Your task to perform on an android device: turn on the 24-hour format for clock Image 0: 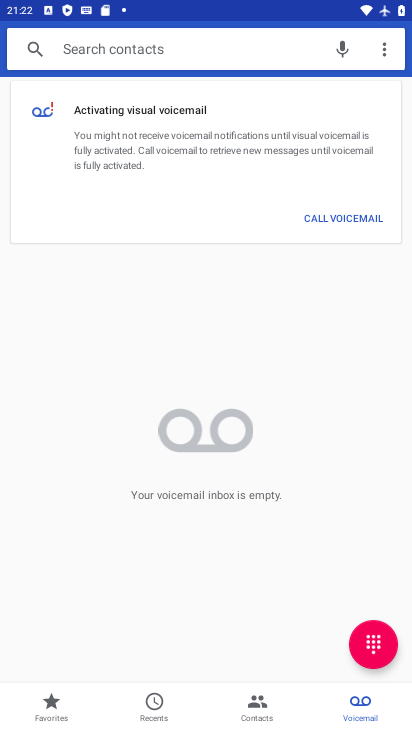
Step 0: press home button
Your task to perform on an android device: turn on the 24-hour format for clock Image 1: 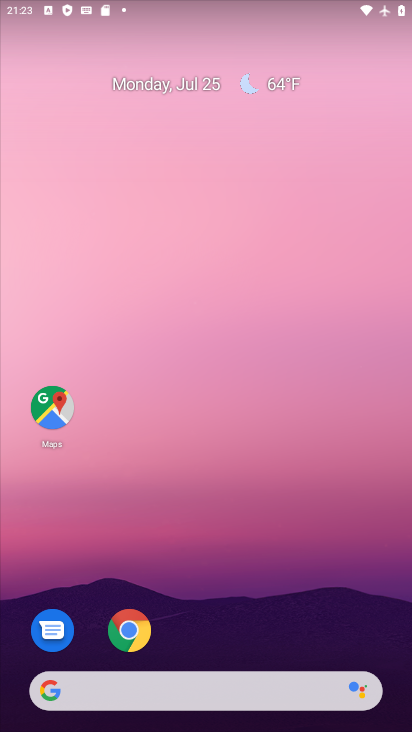
Step 1: drag from (387, 645) to (332, 202)
Your task to perform on an android device: turn on the 24-hour format for clock Image 2: 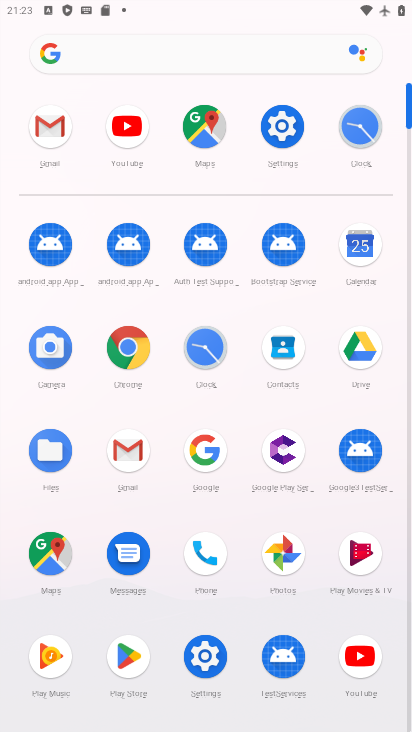
Step 2: click (207, 347)
Your task to perform on an android device: turn on the 24-hour format for clock Image 3: 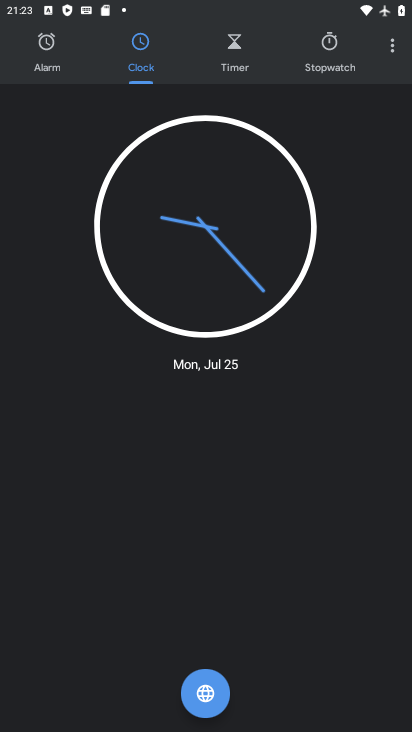
Step 3: click (391, 52)
Your task to perform on an android device: turn on the 24-hour format for clock Image 4: 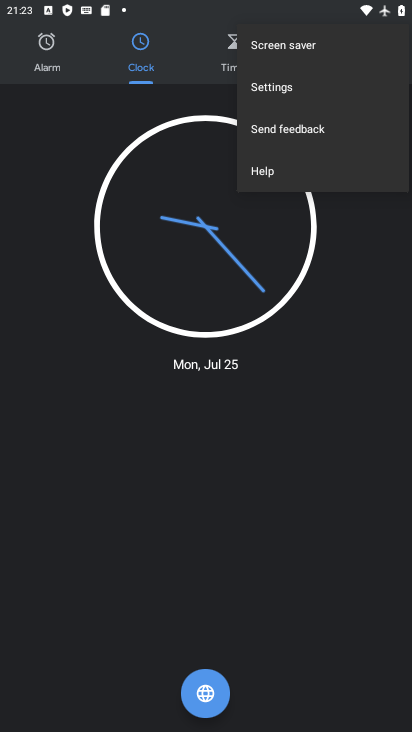
Step 4: click (266, 84)
Your task to perform on an android device: turn on the 24-hour format for clock Image 5: 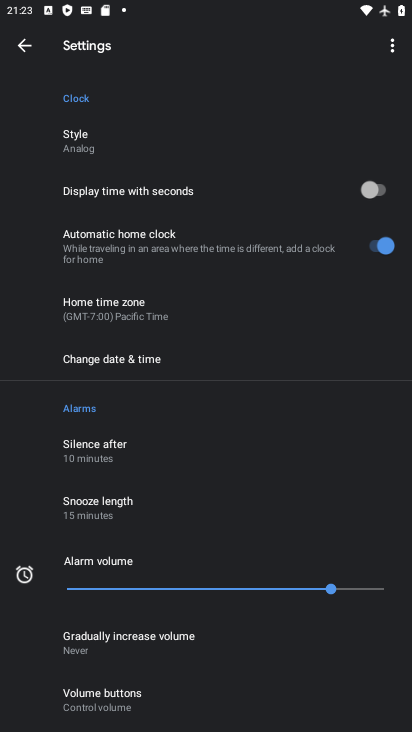
Step 5: click (129, 352)
Your task to perform on an android device: turn on the 24-hour format for clock Image 6: 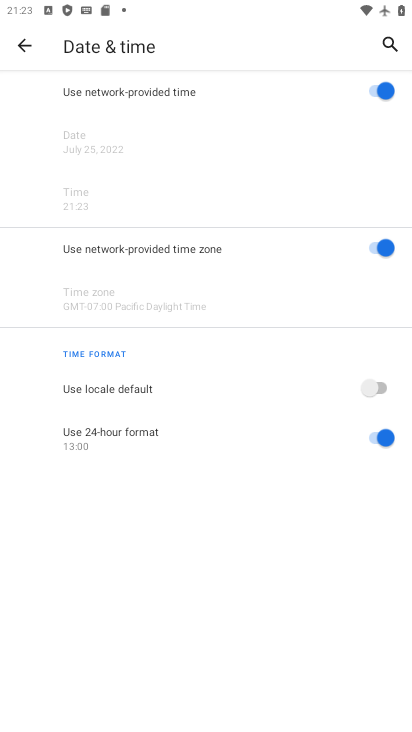
Step 6: task complete